Your task to perform on an android device: change timer sound Image 0: 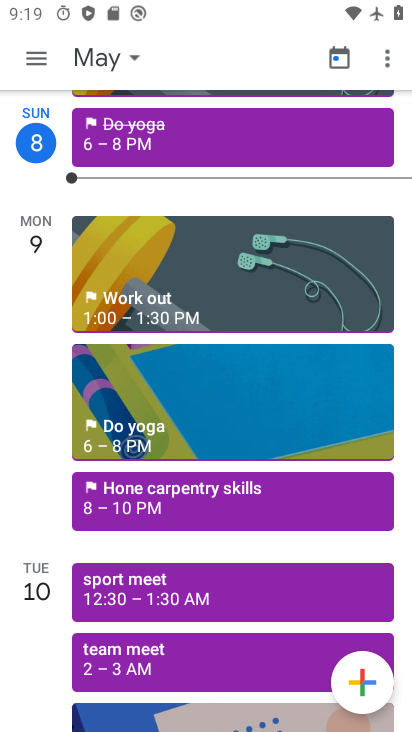
Step 0: press home button
Your task to perform on an android device: change timer sound Image 1: 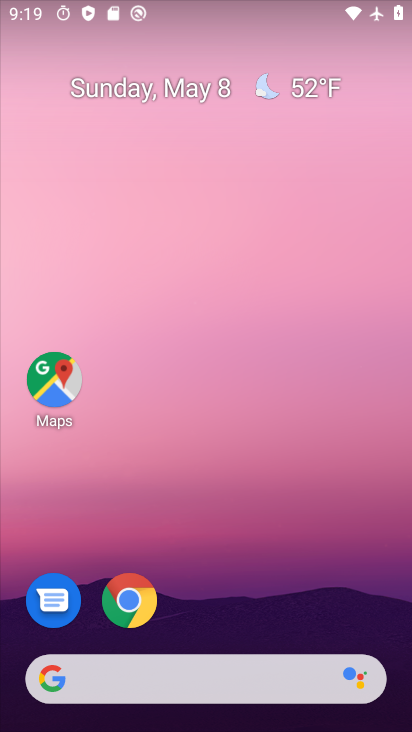
Step 1: drag from (250, 632) to (345, 184)
Your task to perform on an android device: change timer sound Image 2: 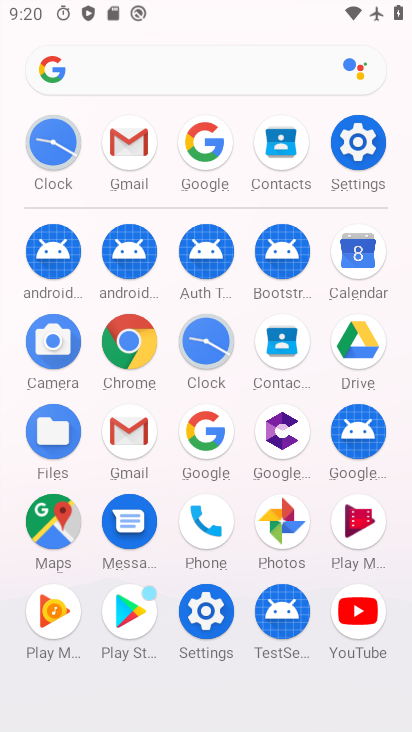
Step 2: click (210, 341)
Your task to perform on an android device: change timer sound Image 3: 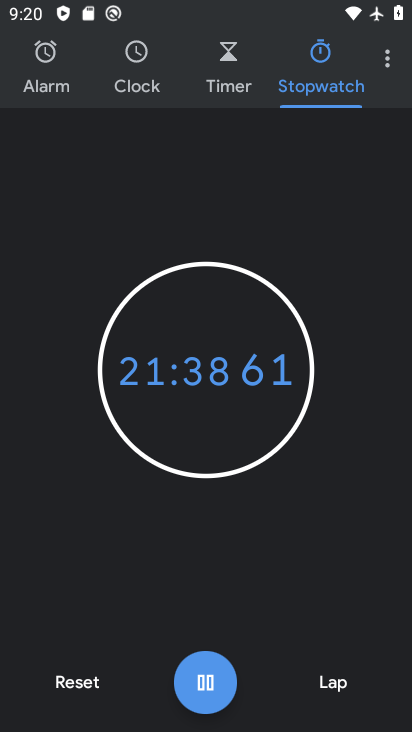
Step 3: click (383, 58)
Your task to perform on an android device: change timer sound Image 4: 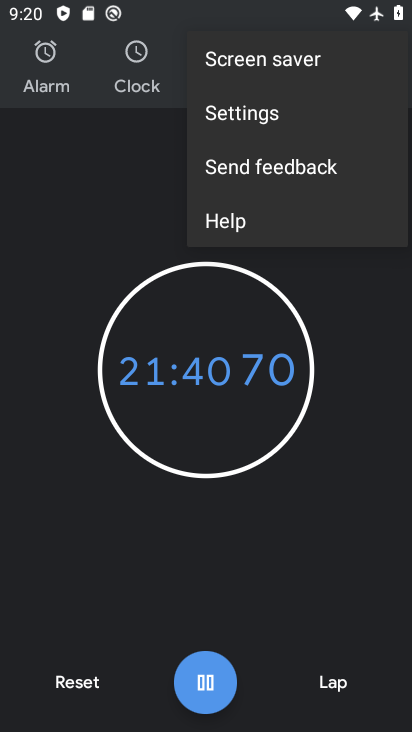
Step 4: click (272, 115)
Your task to perform on an android device: change timer sound Image 5: 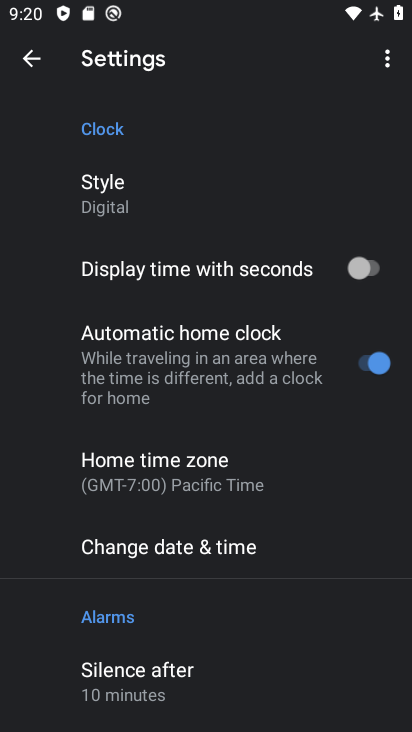
Step 5: drag from (261, 637) to (282, 312)
Your task to perform on an android device: change timer sound Image 6: 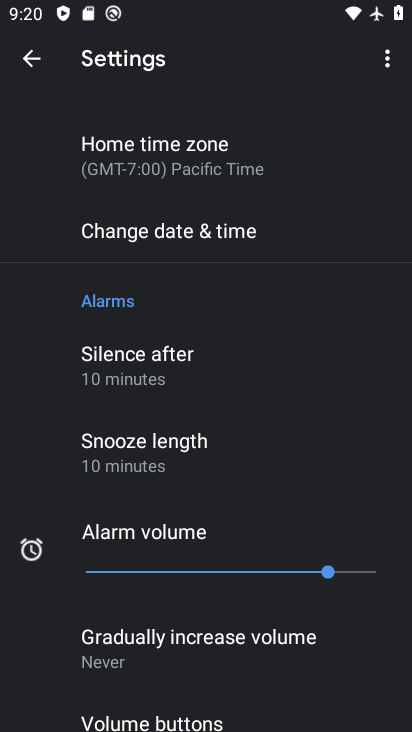
Step 6: drag from (234, 693) to (267, 397)
Your task to perform on an android device: change timer sound Image 7: 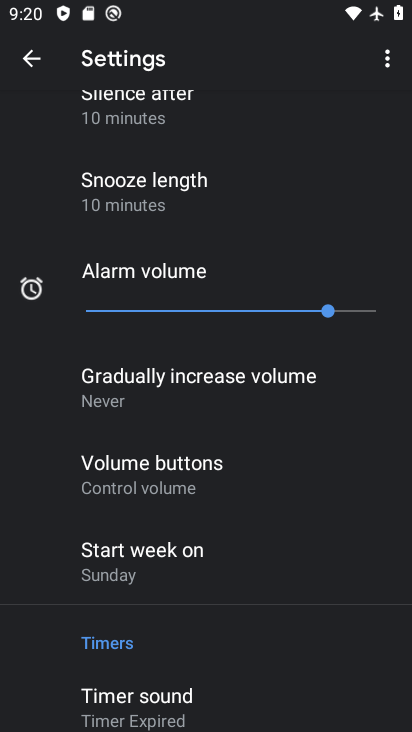
Step 7: click (169, 710)
Your task to perform on an android device: change timer sound Image 8: 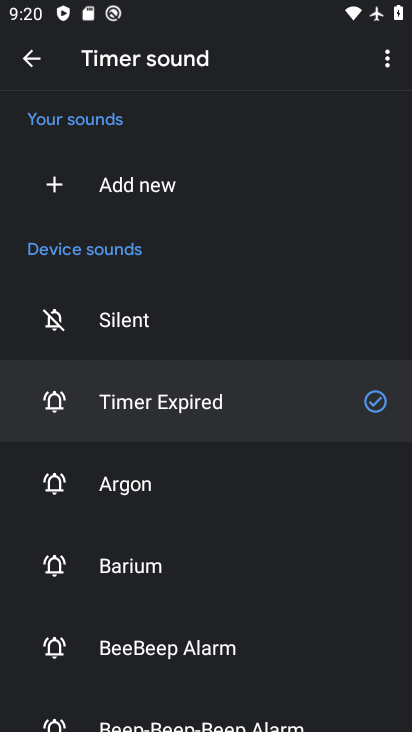
Step 8: click (333, 480)
Your task to perform on an android device: change timer sound Image 9: 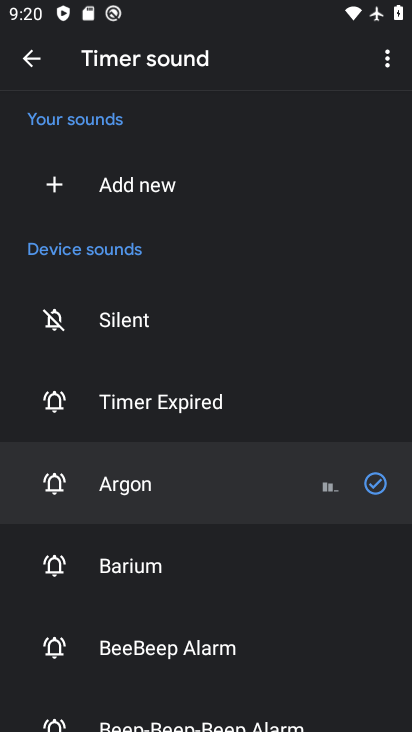
Step 9: task complete